Your task to perform on an android device: Go to battery settings Image 0: 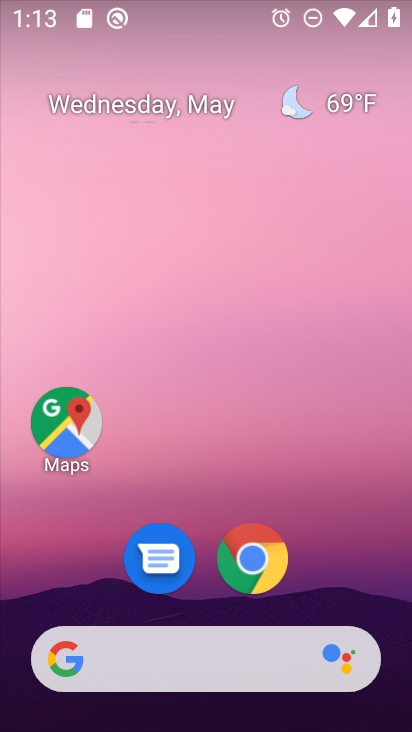
Step 0: drag from (410, 628) to (300, 44)
Your task to perform on an android device: Go to battery settings Image 1: 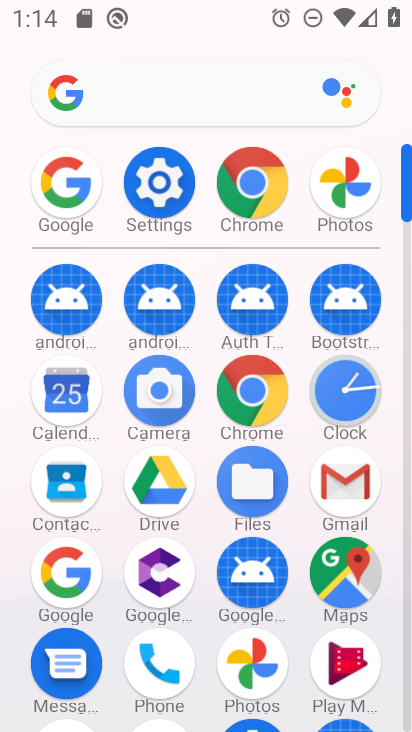
Step 1: click (178, 202)
Your task to perform on an android device: Go to battery settings Image 2: 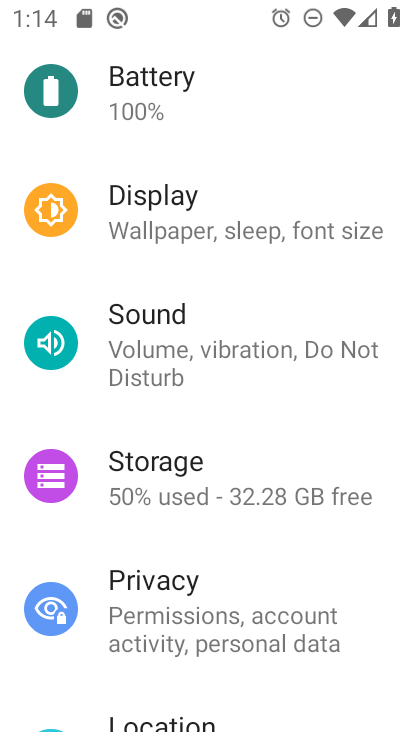
Step 2: click (180, 71)
Your task to perform on an android device: Go to battery settings Image 3: 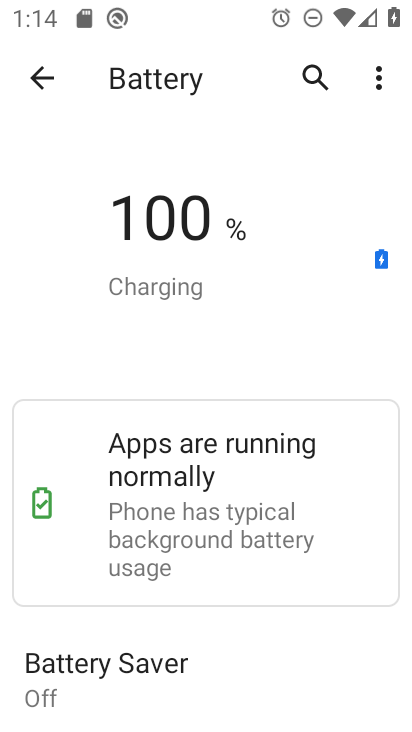
Step 3: task complete